Your task to perform on an android device: all mails in gmail Image 0: 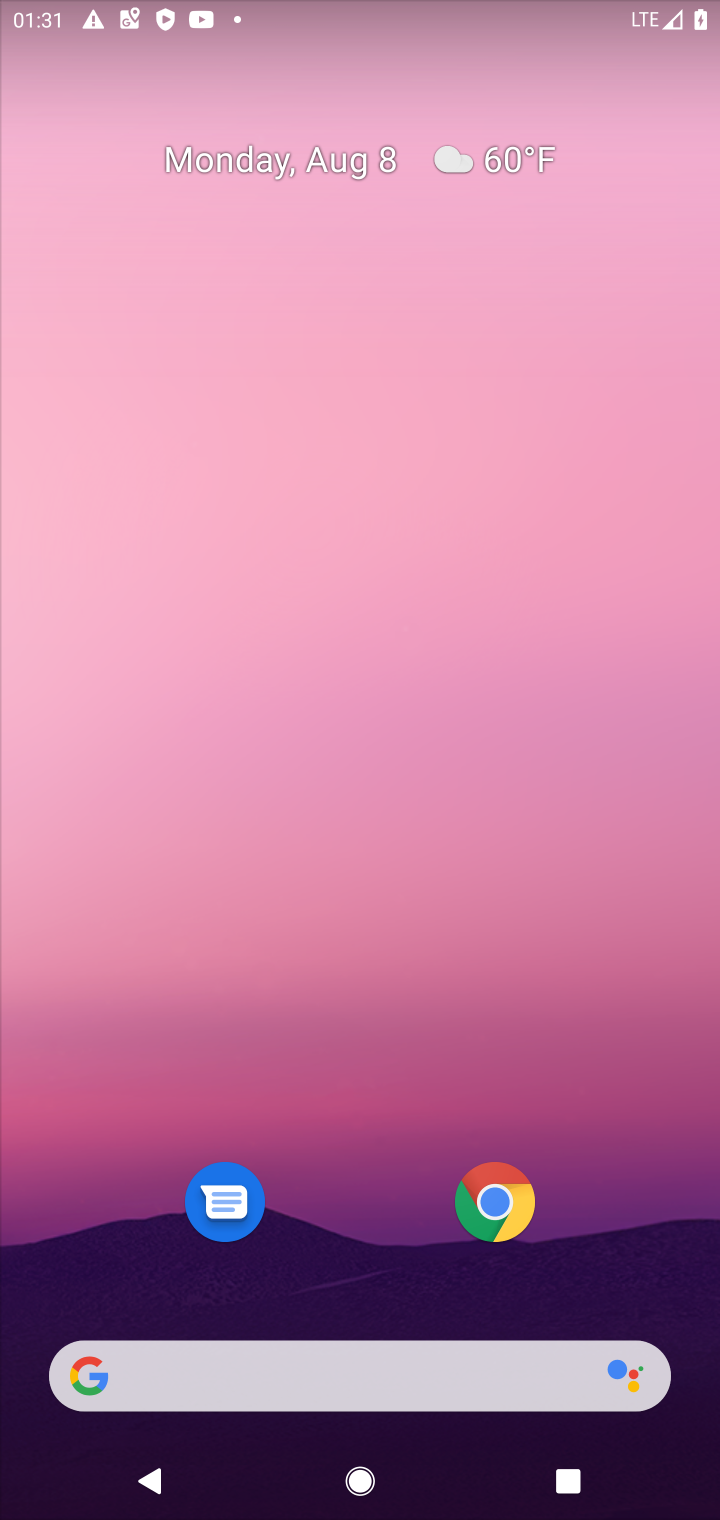
Step 0: drag from (309, 1211) to (250, 215)
Your task to perform on an android device: all mails in gmail Image 1: 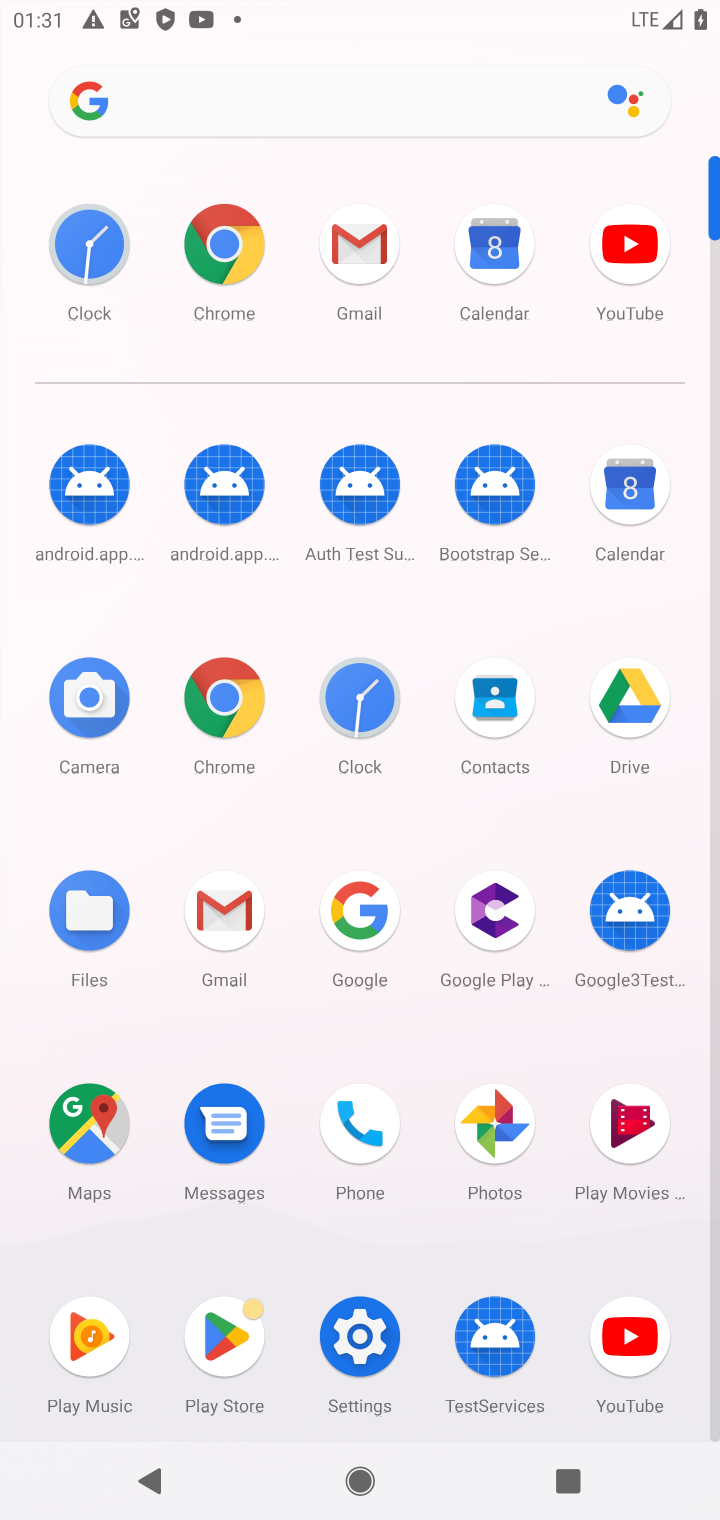
Step 1: click (363, 245)
Your task to perform on an android device: all mails in gmail Image 2: 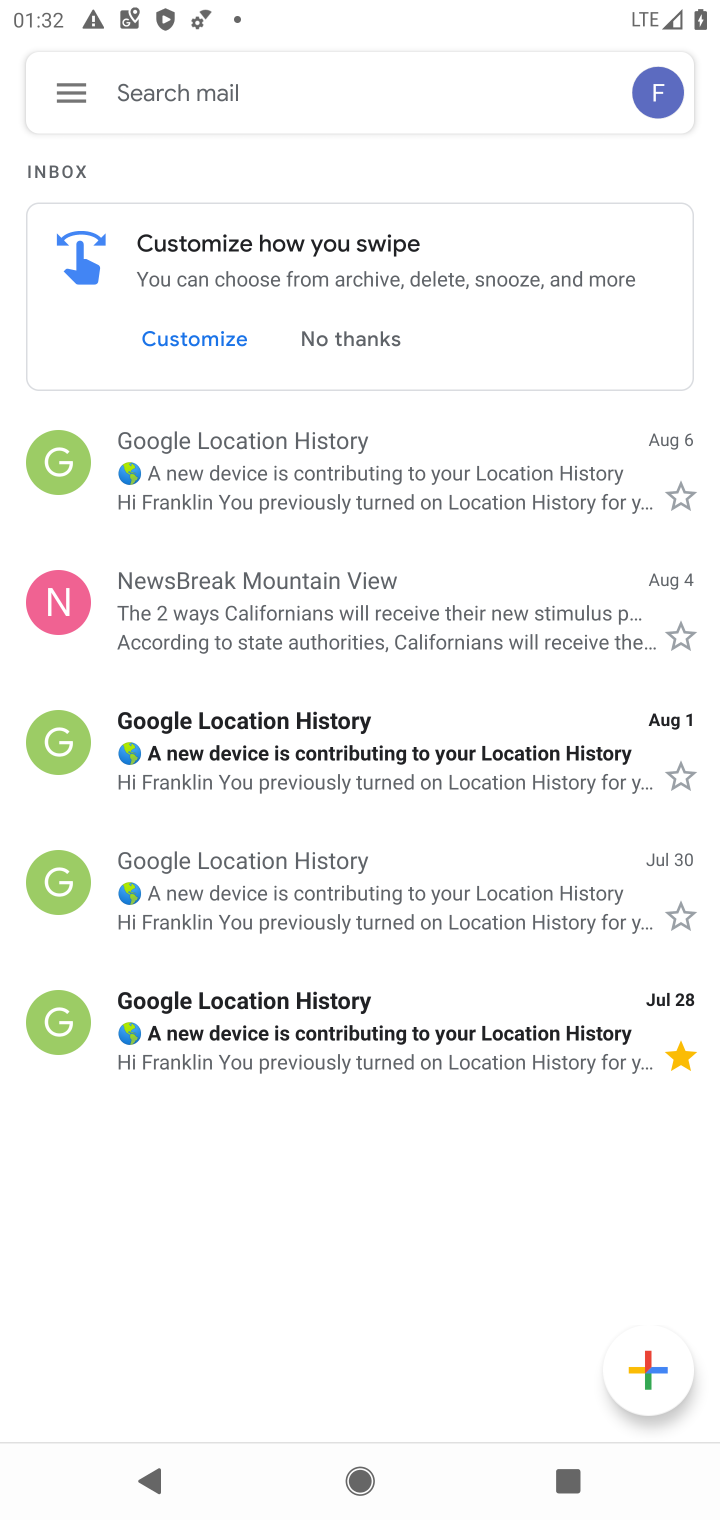
Step 2: click (78, 92)
Your task to perform on an android device: all mails in gmail Image 3: 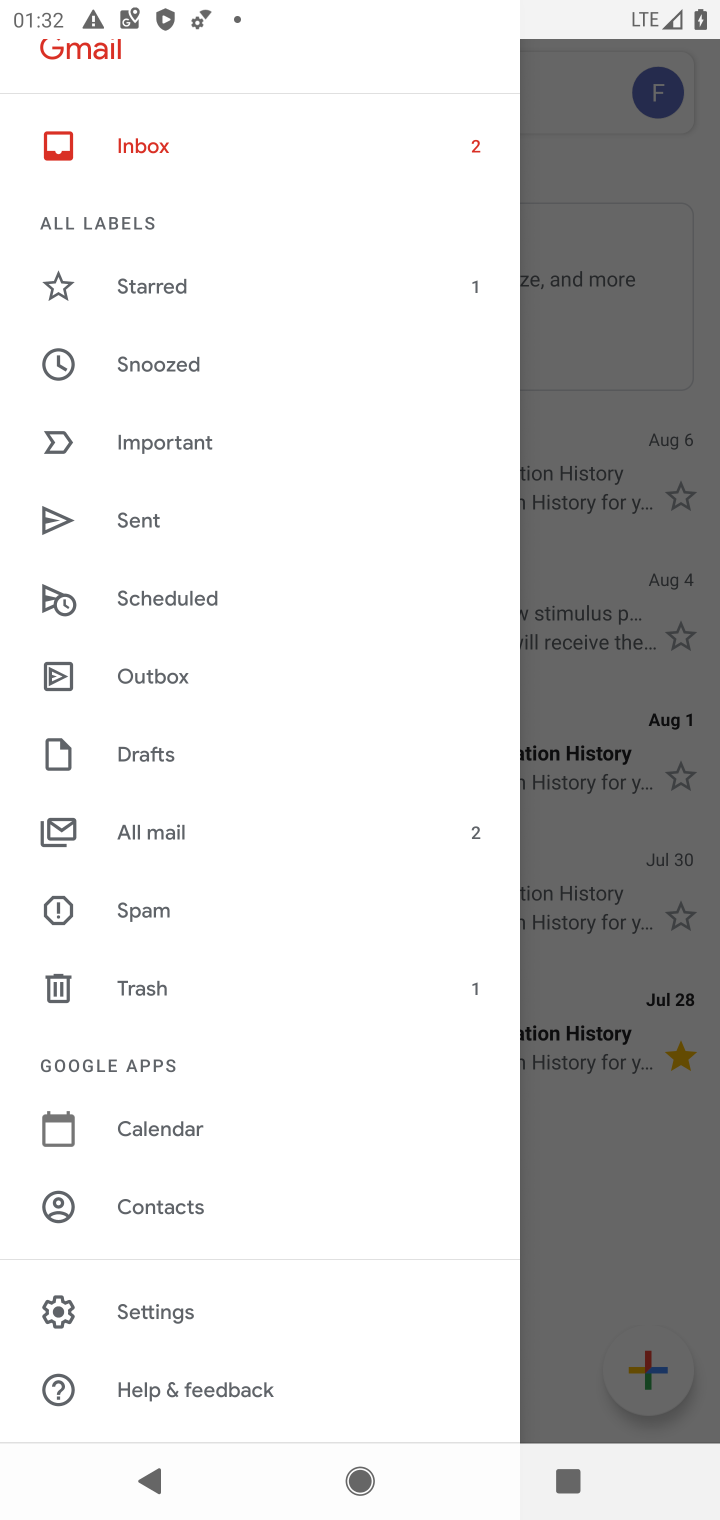
Step 3: click (170, 833)
Your task to perform on an android device: all mails in gmail Image 4: 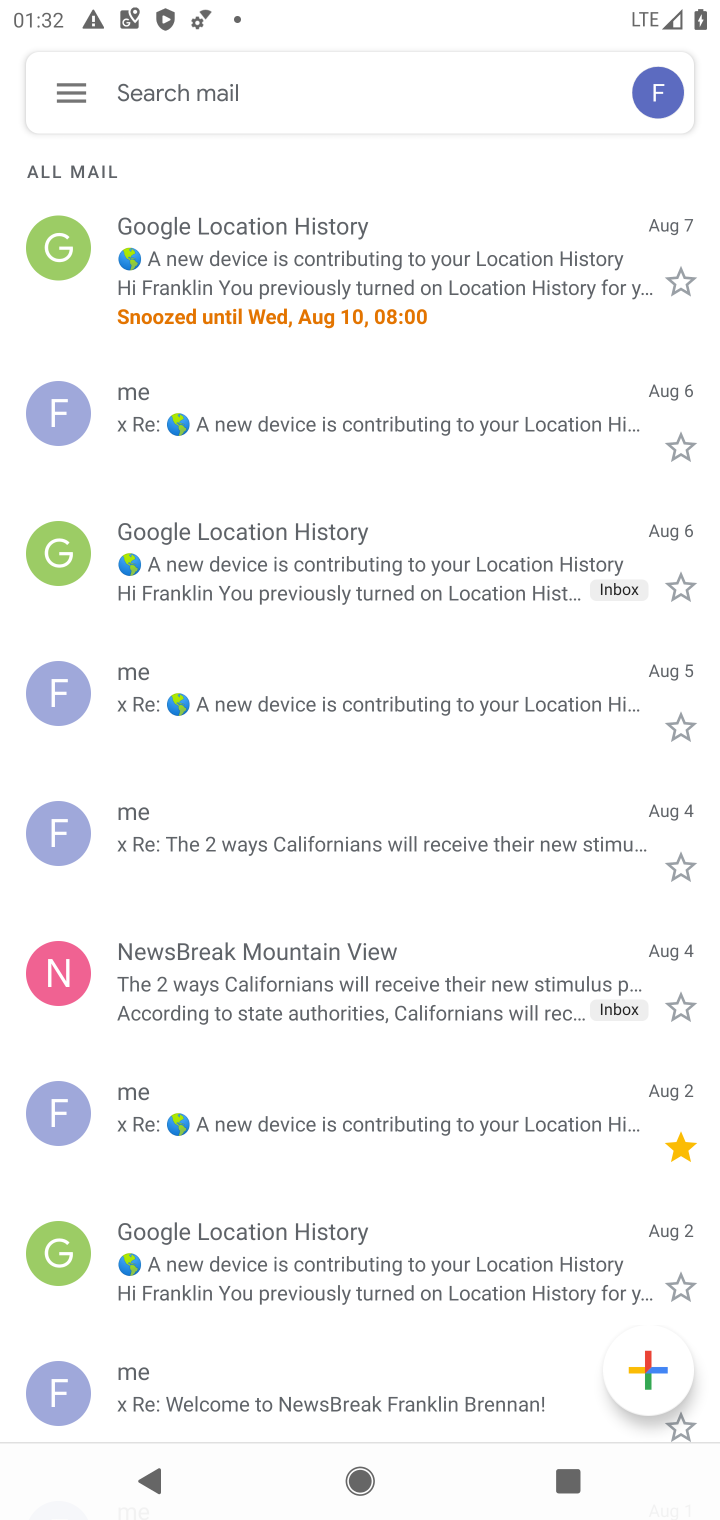
Step 4: task complete